Your task to perform on an android device: check android version Image 0: 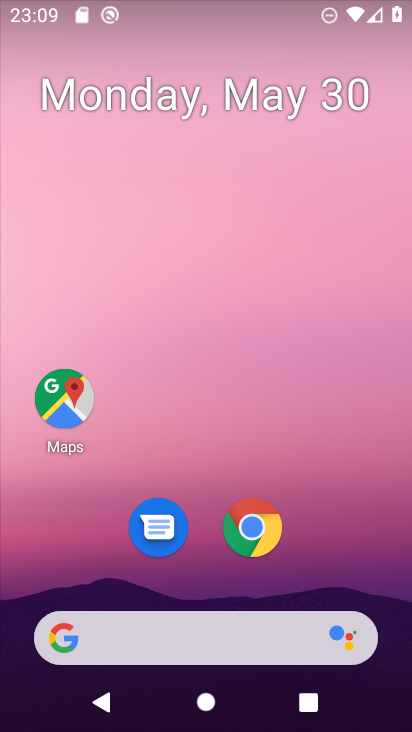
Step 0: drag from (318, 561) to (275, 213)
Your task to perform on an android device: check android version Image 1: 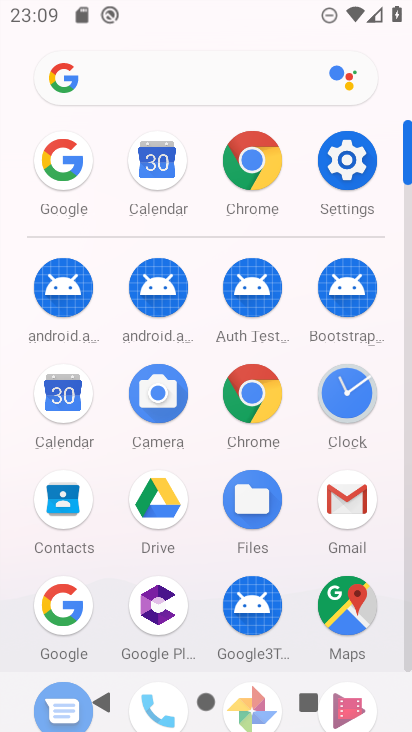
Step 1: click (344, 154)
Your task to perform on an android device: check android version Image 2: 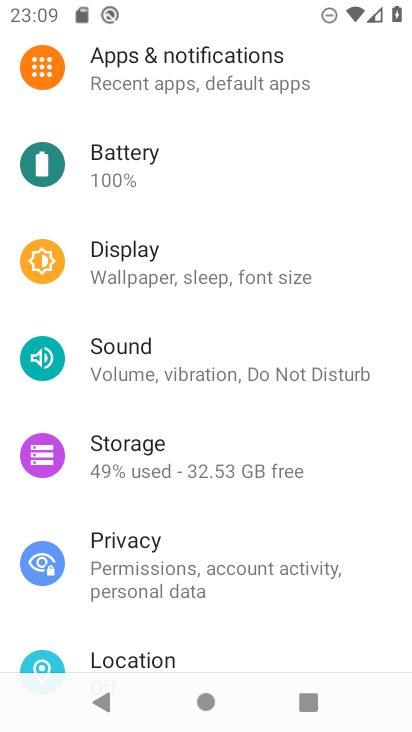
Step 2: drag from (243, 596) to (260, 149)
Your task to perform on an android device: check android version Image 3: 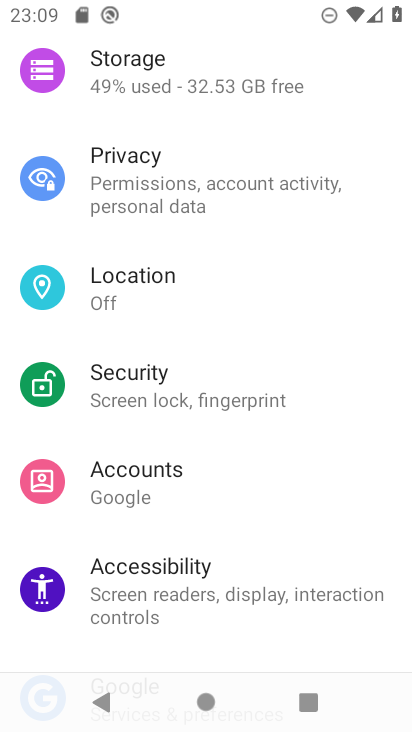
Step 3: drag from (169, 597) to (236, 184)
Your task to perform on an android device: check android version Image 4: 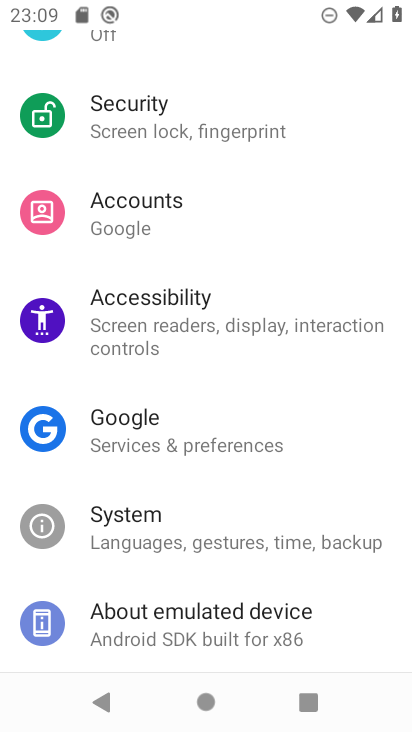
Step 4: click (189, 620)
Your task to perform on an android device: check android version Image 5: 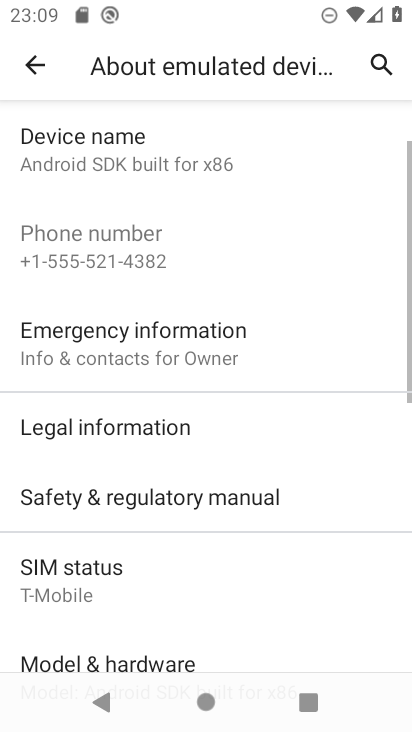
Step 5: drag from (213, 560) to (250, 144)
Your task to perform on an android device: check android version Image 6: 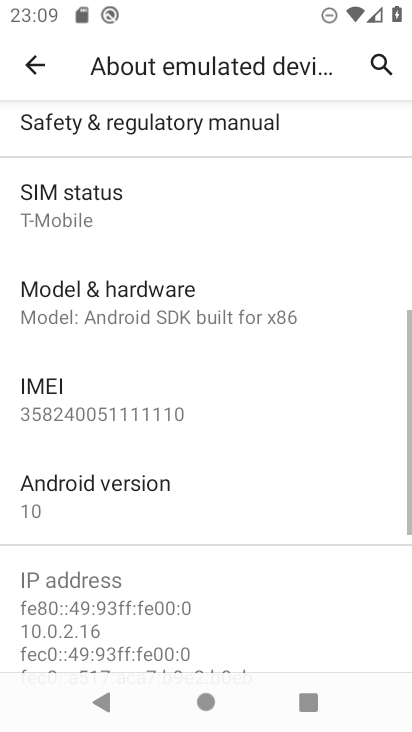
Step 6: click (181, 503)
Your task to perform on an android device: check android version Image 7: 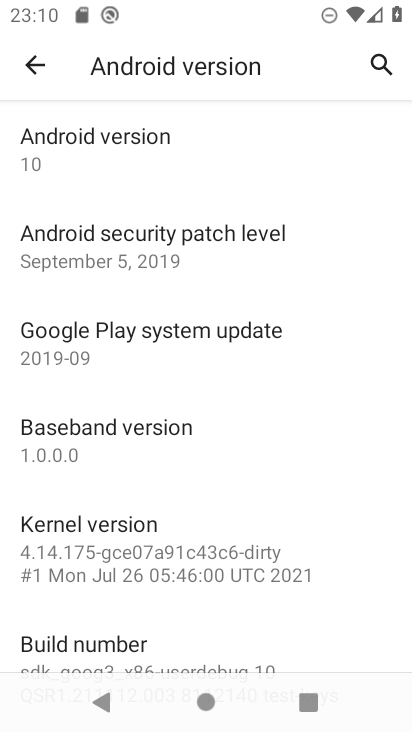
Step 7: task complete